Your task to perform on an android device: see sites visited before in the chrome app Image 0: 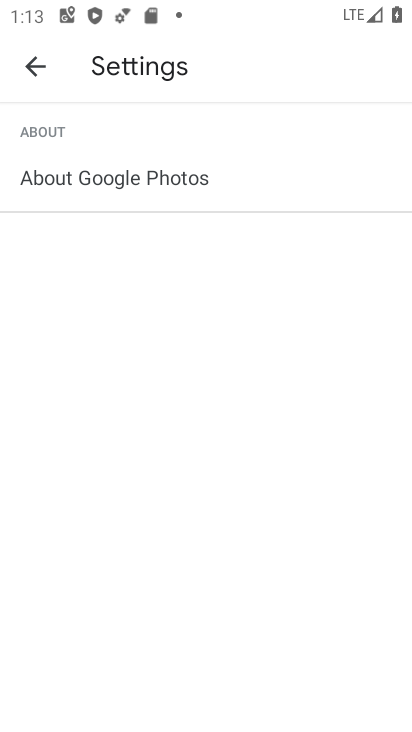
Step 0: press home button
Your task to perform on an android device: see sites visited before in the chrome app Image 1: 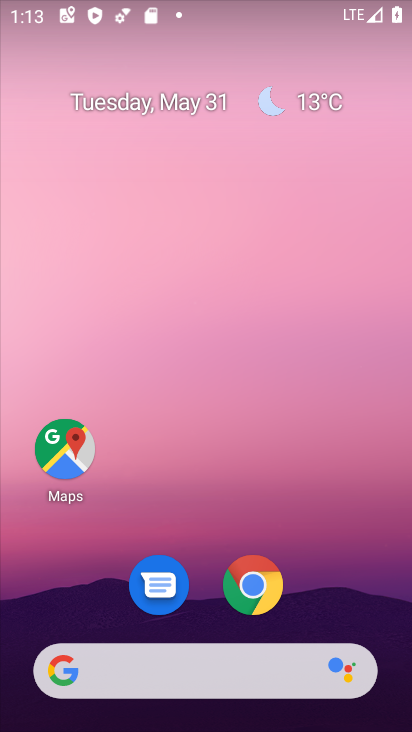
Step 1: click (252, 581)
Your task to perform on an android device: see sites visited before in the chrome app Image 2: 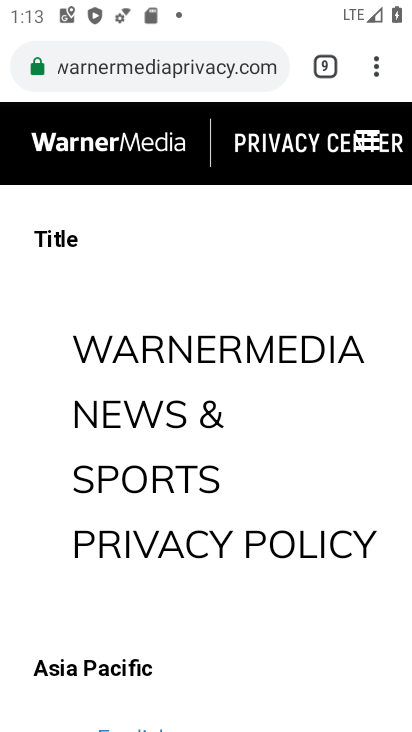
Step 2: click (374, 72)
Your task to perform on an android device: see sites visited before in the chrome app Image 3: 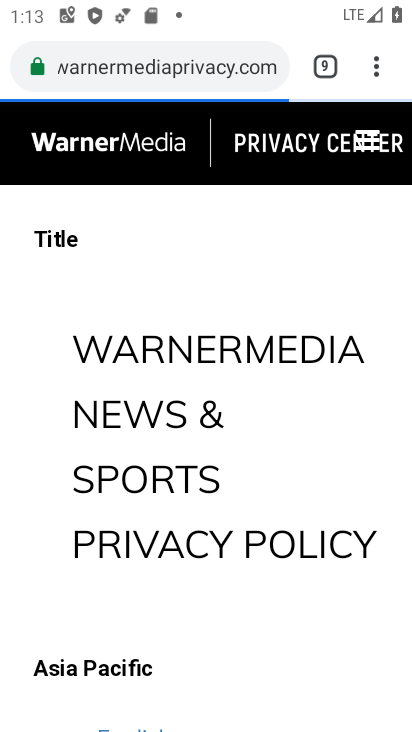
Step 3: click (374, 72)
Your task to perform on an android device: see sites visited before in the chrome app Image 4: 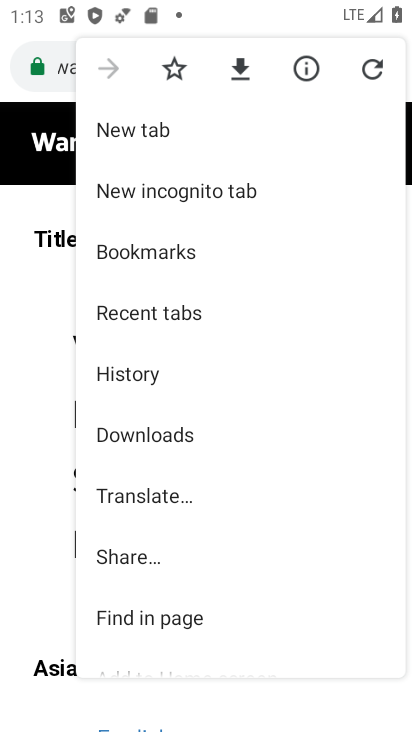
Step 4: click (174, 306)
Your task to perform on an android device: see sites visited before in the chrome app Image 5: 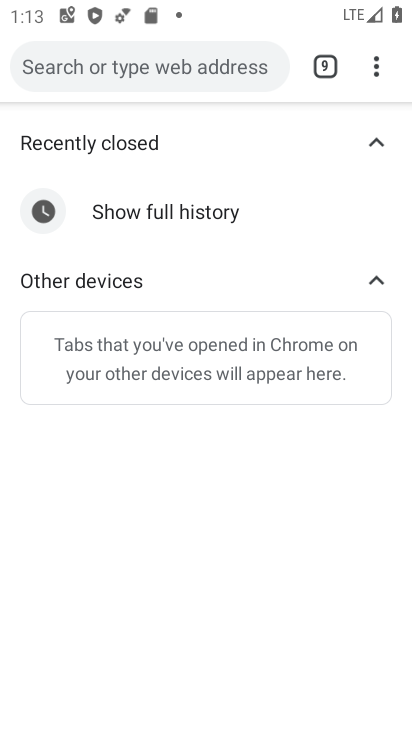
Step 5: task complete